Your task to perform on an android device: open app "ZOOM Cloud Meetings" Image 0: 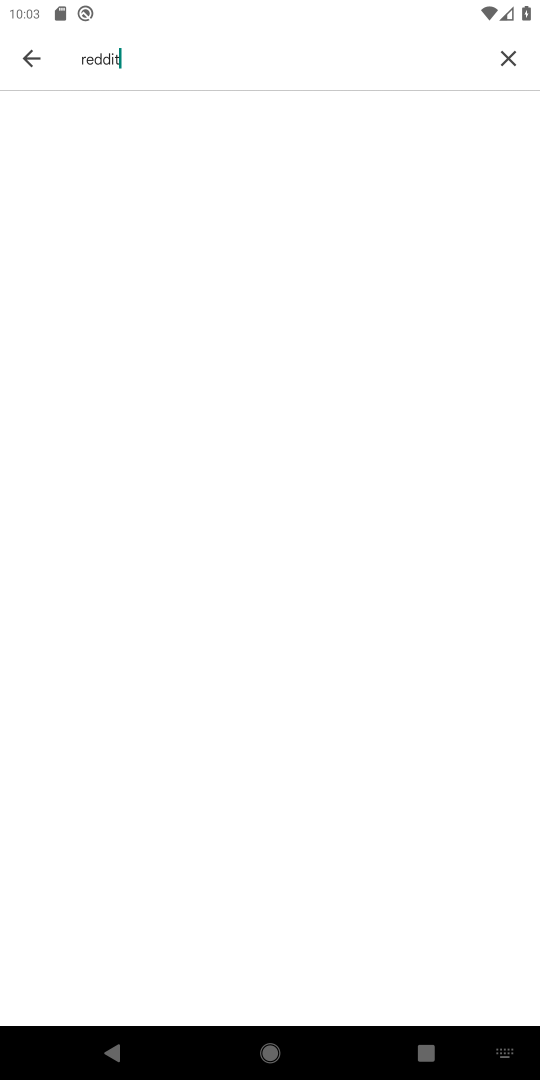
Step 0: press home button
Your task to perform on an android device: open app "ZOOM Cloud Meetings" Image 1: 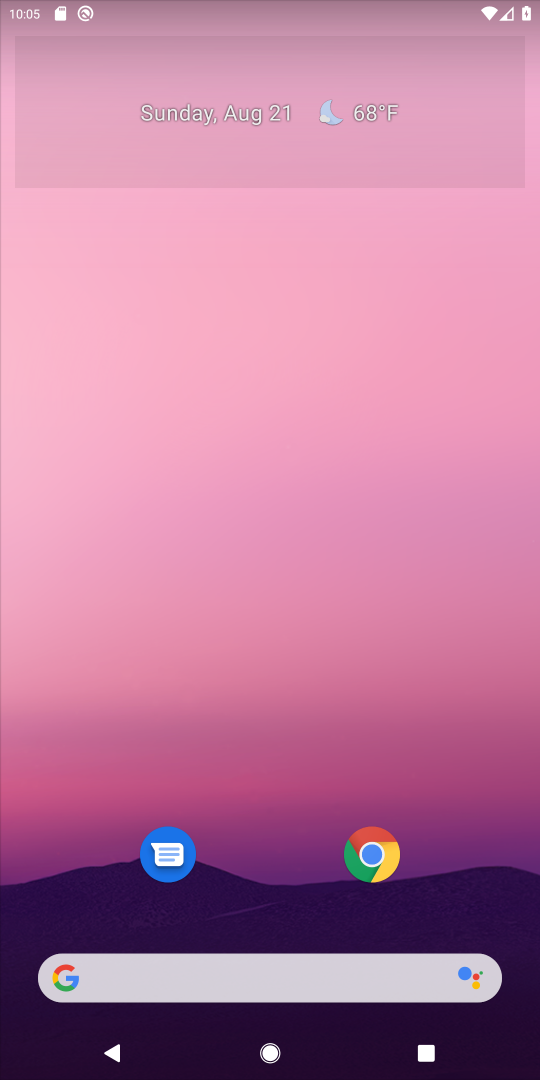
Step 1: drag from (272, 541) to (276, 14)
Your task to perform on an android device: open app "ZOOM Cloud Meetings" Image 2: 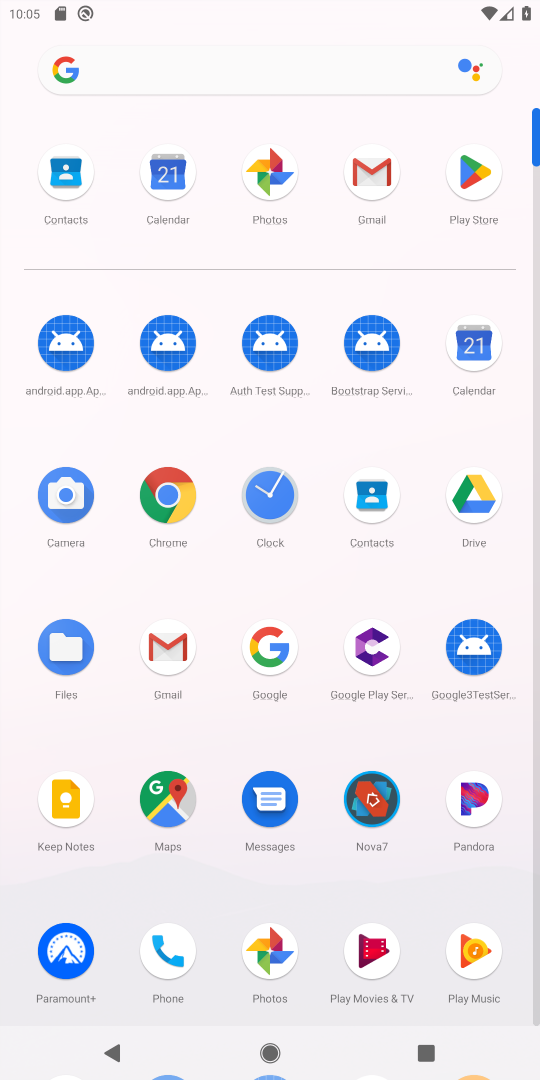
Step 2: click (475, 197)
Your task to perform on an android device: open app "ZOOM Cloud Meetings" Image 3: 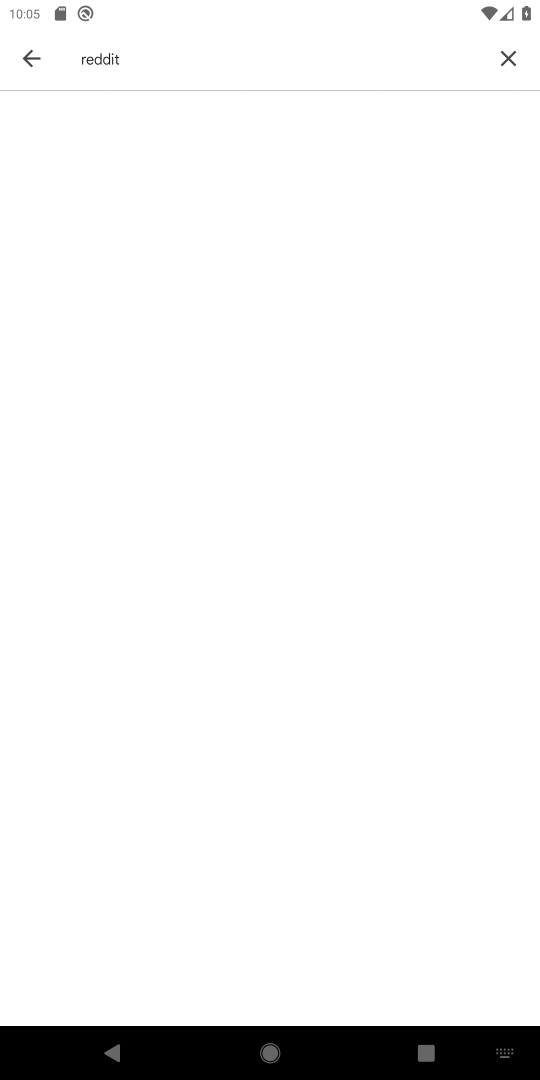
Step 3: click (498, 69)
Your task to perform on an android device: open app "ZOOM Cloud Meetings" Image 4: 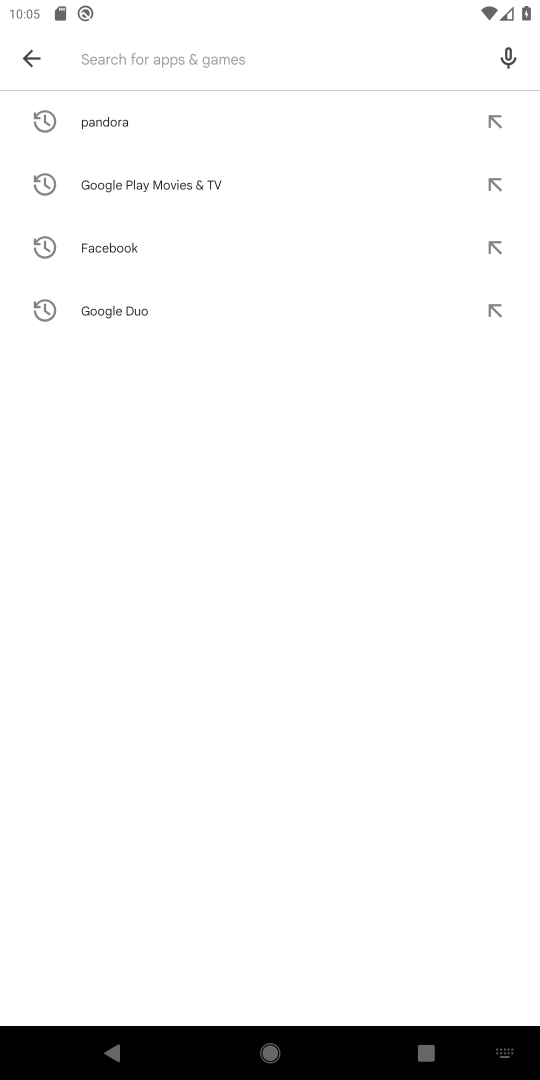
Step 4: type "zoom "
Your task to perform on an android device: open app "ZOOM Cloud Meetings" Image 5: 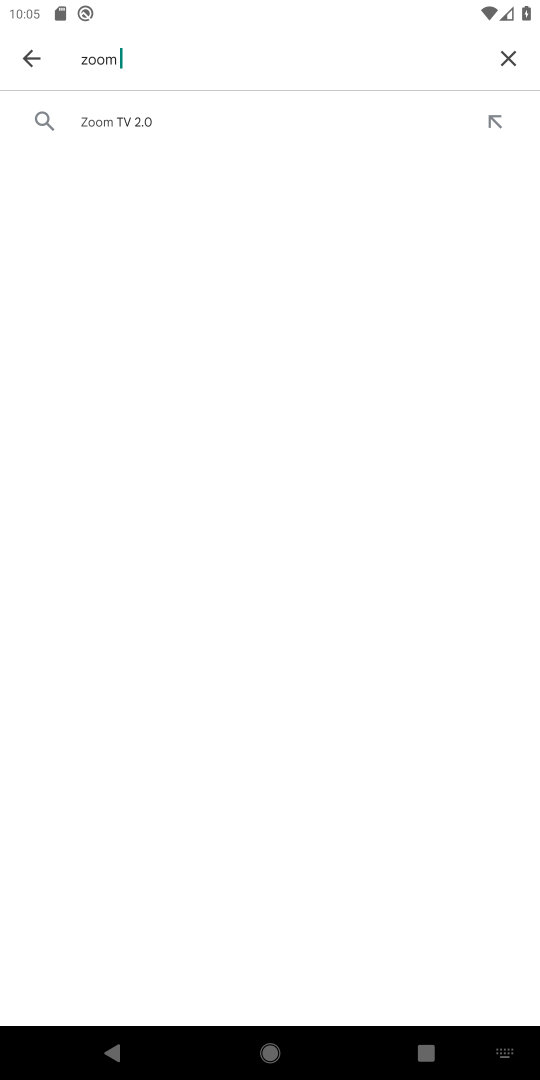
Step 5: click (191, 135)
Your task to perform on an android device: open app "ZOOM Cloud Meetings" Image 6: 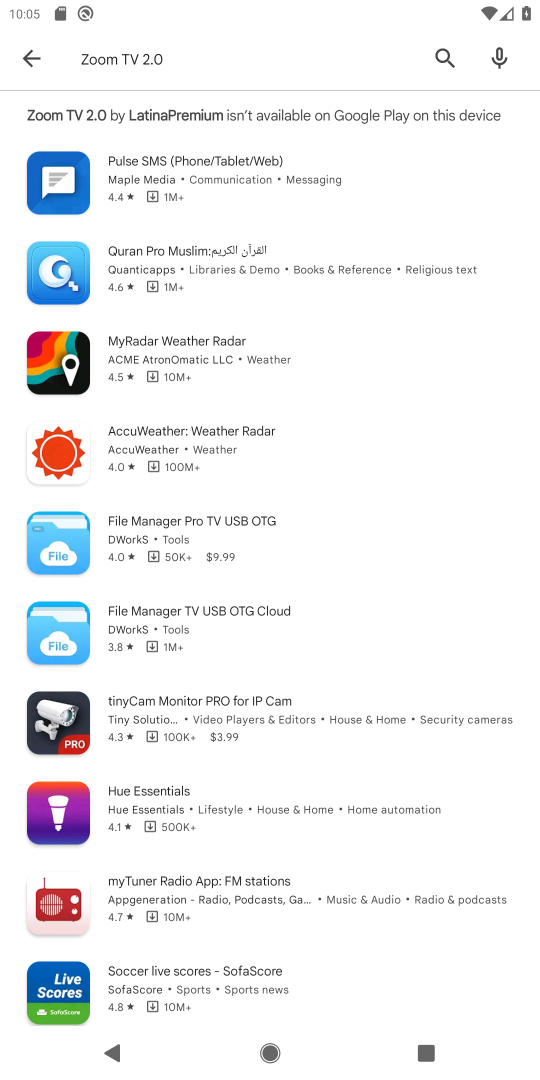
Step 6: task complete